Your task to perform on an android device: manage bookmarks in the chrome app Image 0: 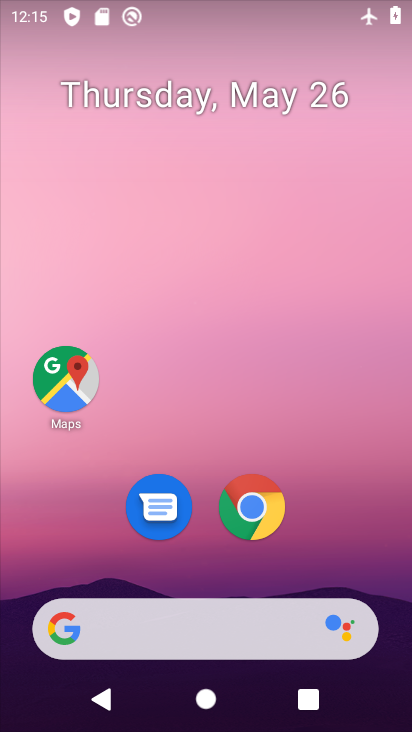
Step 0: click (238, 526)
Your task to perform on an android device: manage bookmarks in the chrome app Image 1: 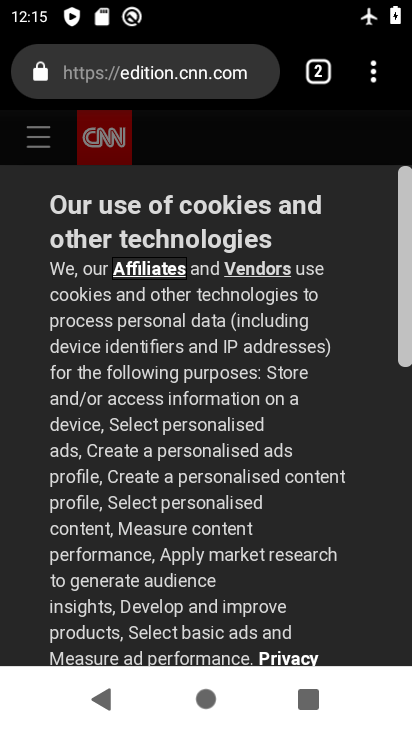
Step 1: task complete